Your task to perform on an android device: Open the Play Movies app and select the watchlist tab. Image 0: 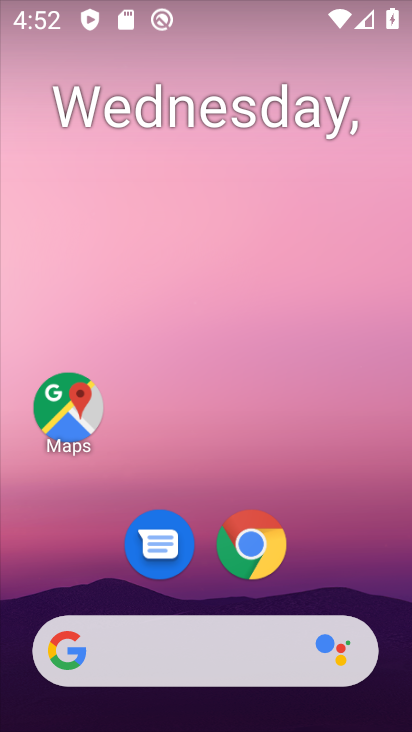
Step 0: drag from (404, 698) to (302, 201)
Your task to perform on an android device: Open the Play Movies app and select the watchlist tab. Image 1: 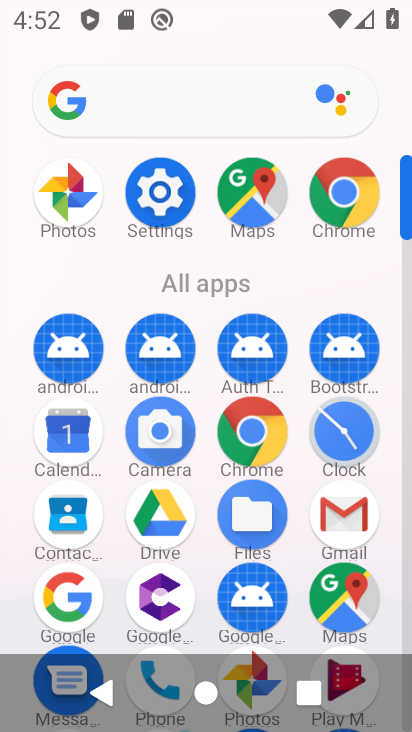
Step 1: drag from (298, 602) to (268, 319)
Your task to perform on an android device: Open the Play Movies app and select the watchlist tab. Image 2: 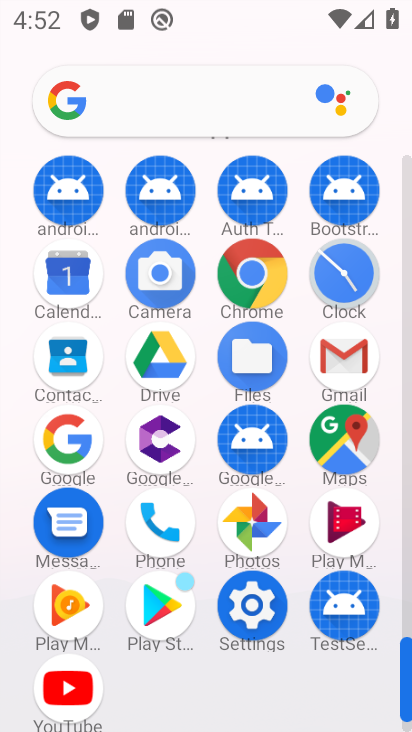
Step 2: click (346, 516)
Your task to perform on an android device: Open the Play Movies app and select the watchlist tab. Image 3: 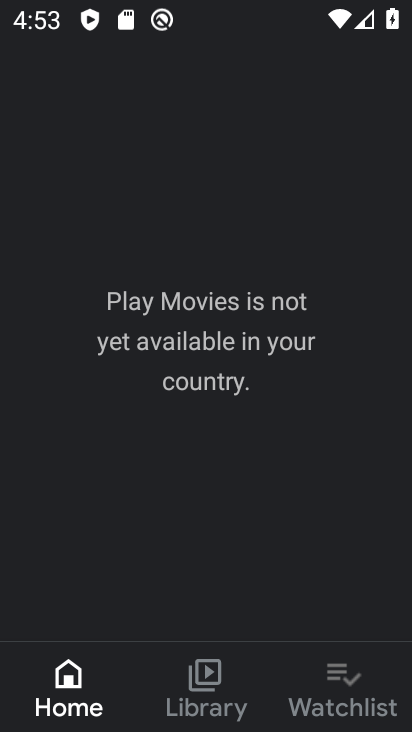
Step 3: click (334, 692)
Your task to perform on an android device: Open the Play Movies app and select the watchlist tab. Image 4: 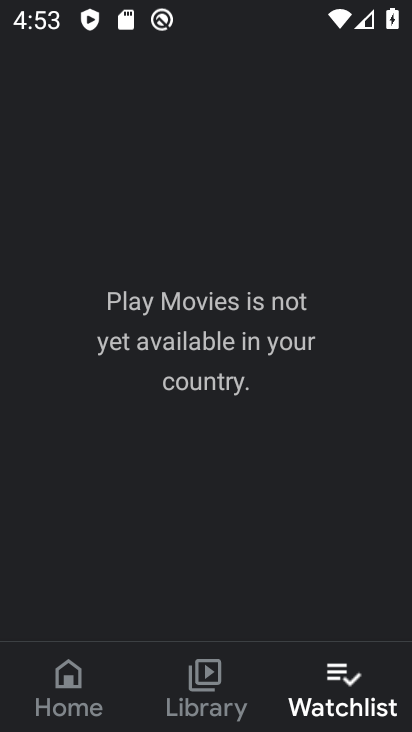
Step 4: task complete